Your task to perform on an android device: Open Google Chrome and open the bookmarks view Image 0: 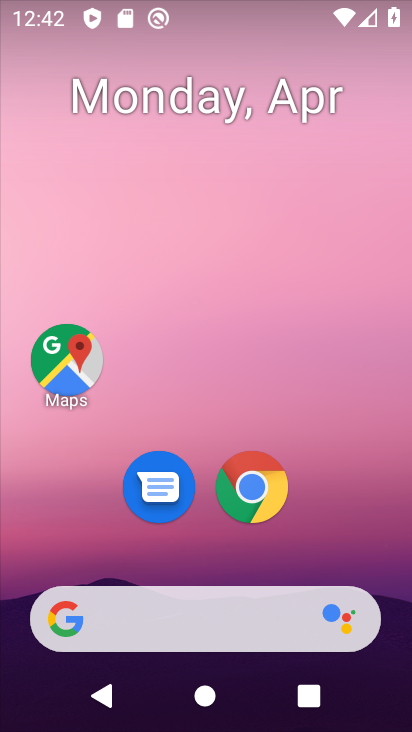
Step 0: click (248, 24)
Your task to perform on an android device: Open Google Chrome and open the bookmarks view Image 1: 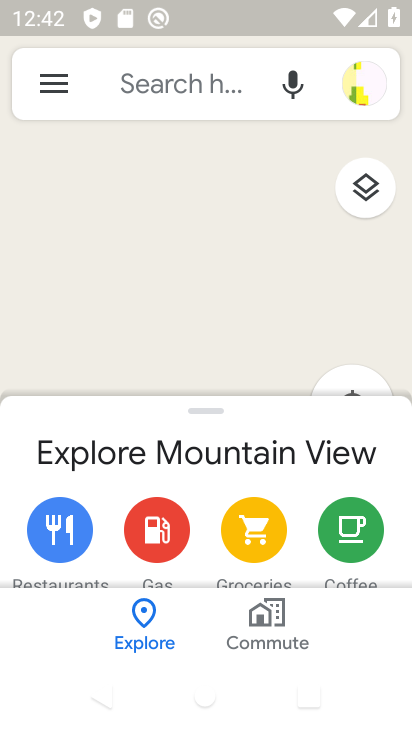
Step 1: press home button
Your task to perform on an android device: Open Google Chrome and open the bookmarks view Image 2: 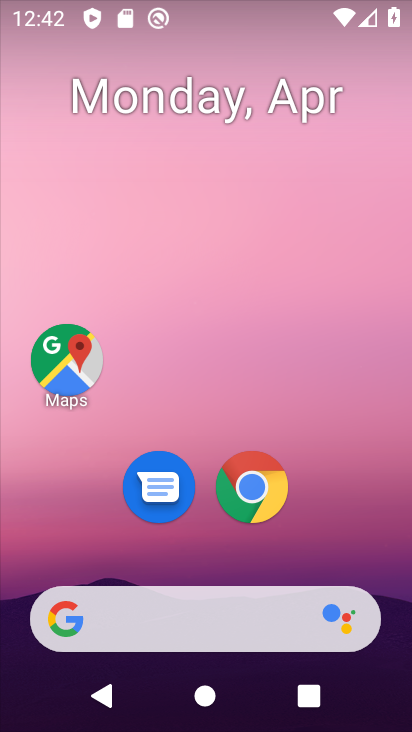
Step 2: drag from (387, 622) to (292, 78)
Your task to perform on an android device: Open Google Chrome and open the bookmarks view Image 3: 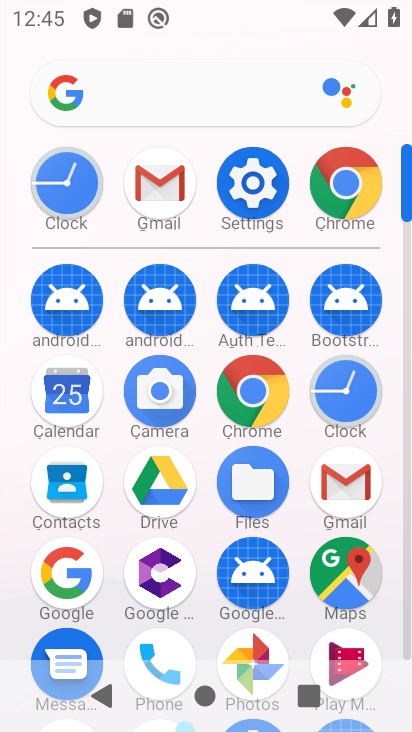
Step 3: click (267, 397)
Your task to perform on an android device: Open Google Chrome and open the bookmarks view Image 4: 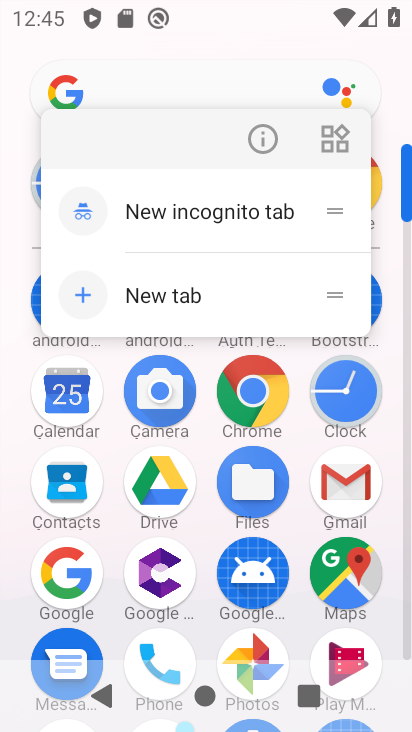
Step 4: click (267, 397)
Your task to perform on an android device: Open Google Chrome and open the bookmarks view Image 5: 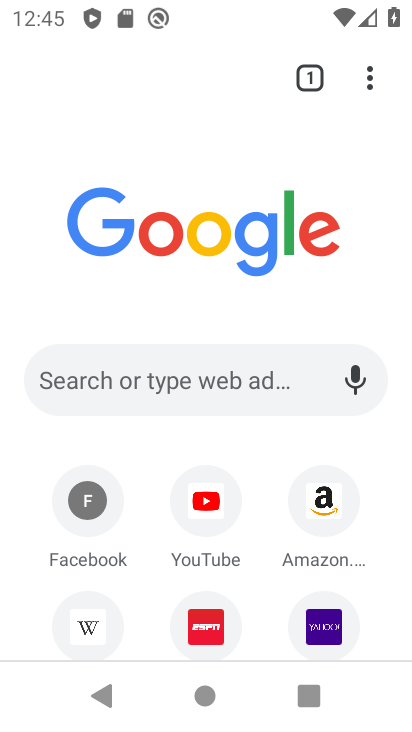
Step 5: click (378, 73)
Your task to perform on an android device: Open Google Chrome and open the bookmarks view Image 6: 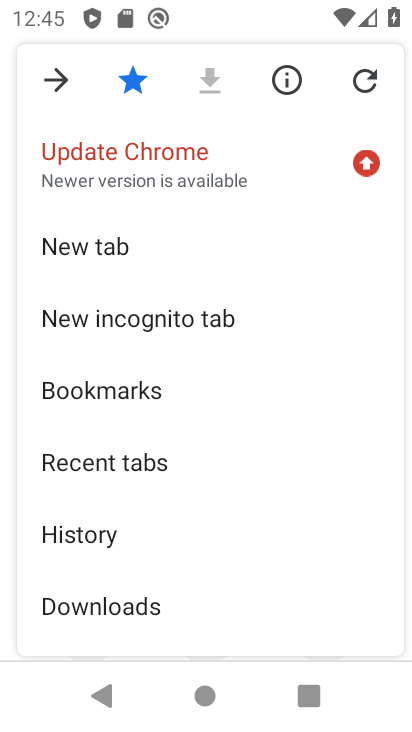
Step 6: click (185, 387)
Your task to perform on an android device: Open Google Chrome and open the bookmarks view Image 7: 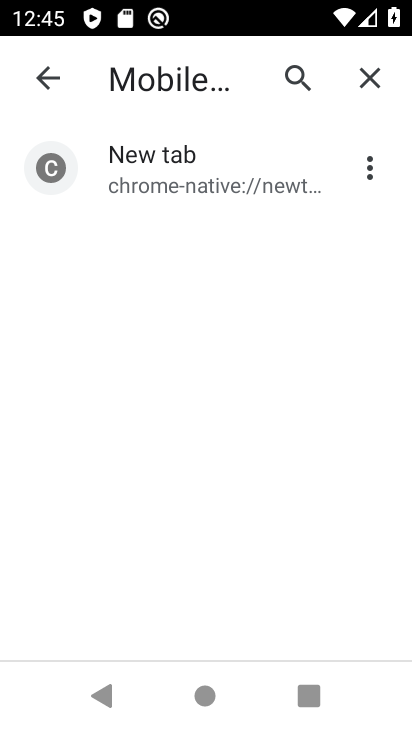
Step 7: task complete